Your task to perform on an android device: check google app version Image 0: 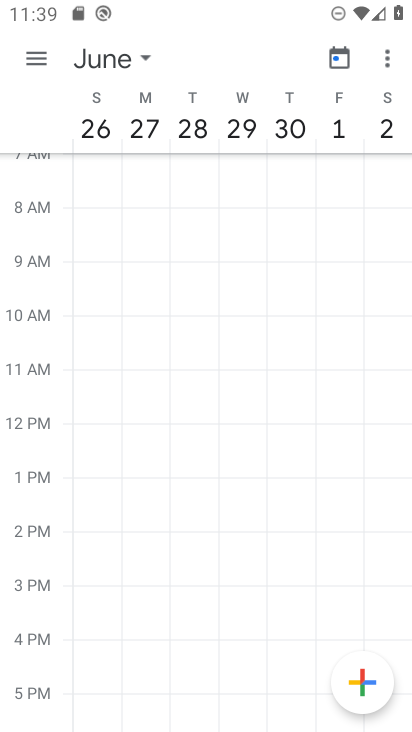
Step 0: press home button
Your task to perform on an android device: check google app version Image 1: 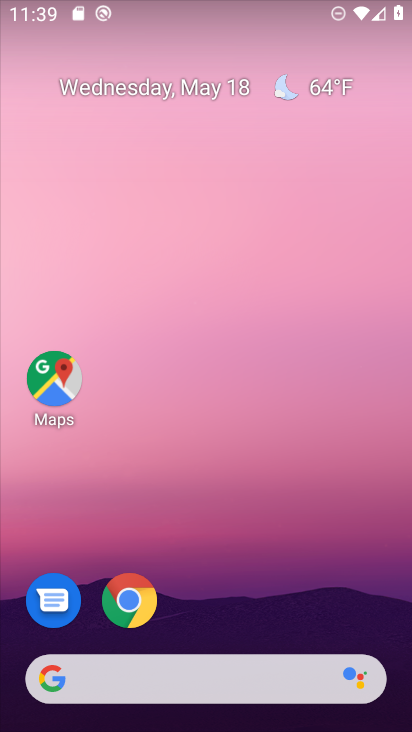
Step 1: click (52, 679)
Your task to perform on an android device: check google app version Image 2: 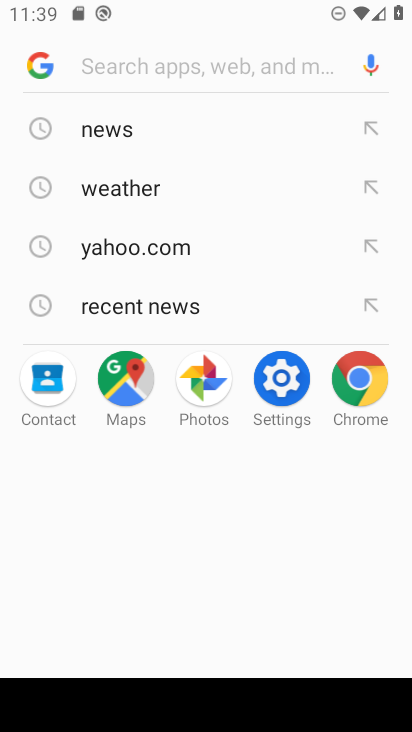
Step 2: click (35, 59)
Your task to perform on an android device: check google app version Image 3: 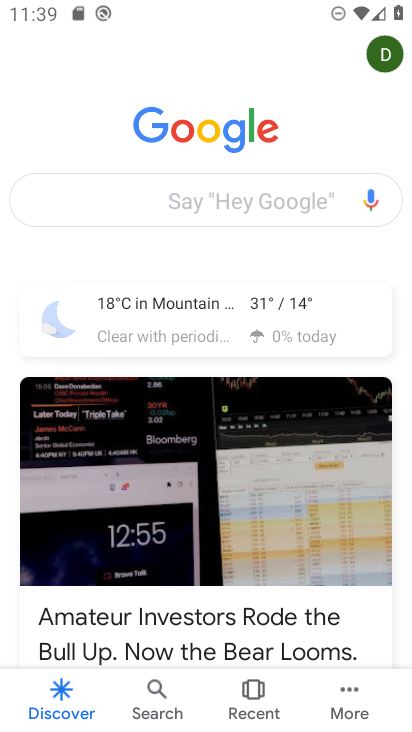
Step 3: click (350, 684)
Your task to perform on an android device: check google app version Image 4: 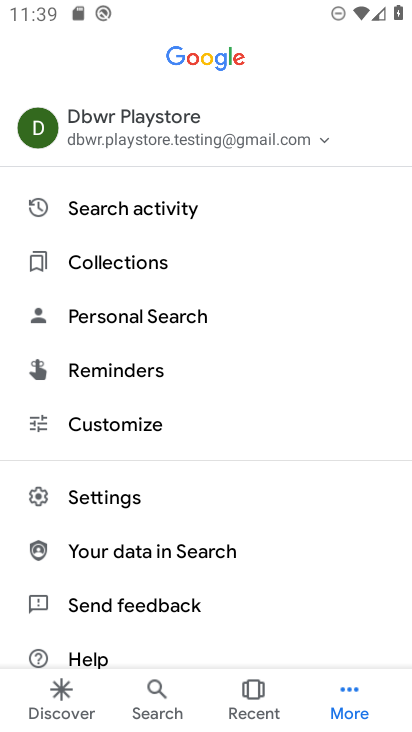
Step 4: click (68, 494)
Your task to perform on an android device: check google app version Image 5: 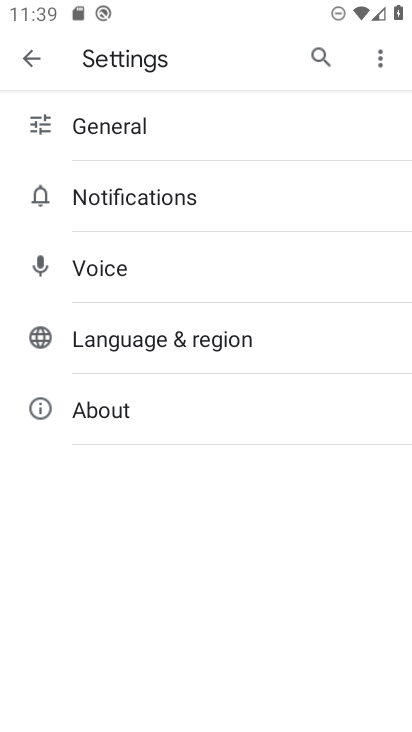
Step 5: click (93, 401)
Your task to perform on an android device: check google app version Image 6: 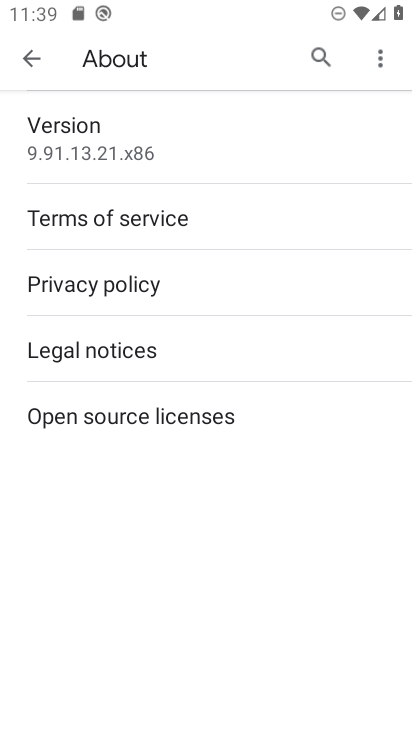
Step 6: task complete